Your task to perform on an android device: open a bookmark in the chrome app Image 0: 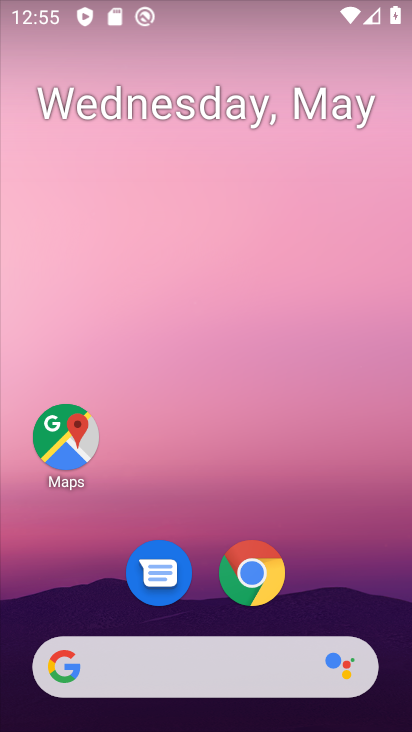
Step 0: click (255, 575)
Your task to perform on an android device: open a bookmark in the chrome app Image 1: 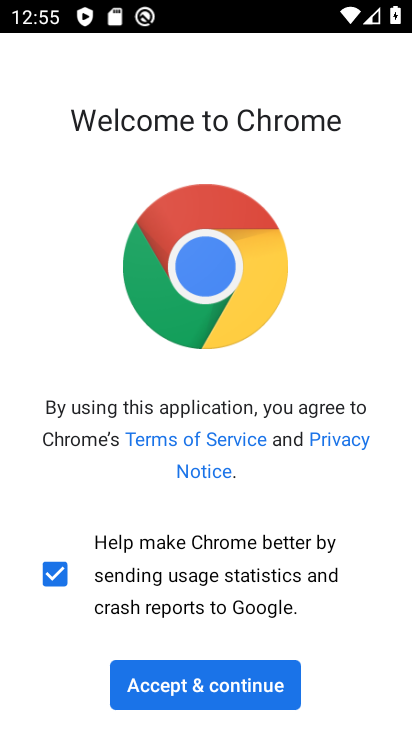
Step 1: click (242, 672)
Your task to perform on an android device: open a bookmark in the chrome app Image 2: 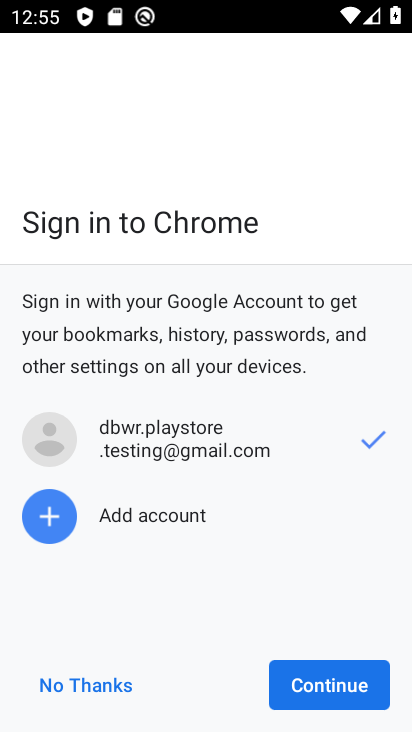
Step 2: click (302, 675)
Your task to perform on an android device: open a bookmark in the chrome app Image 3: 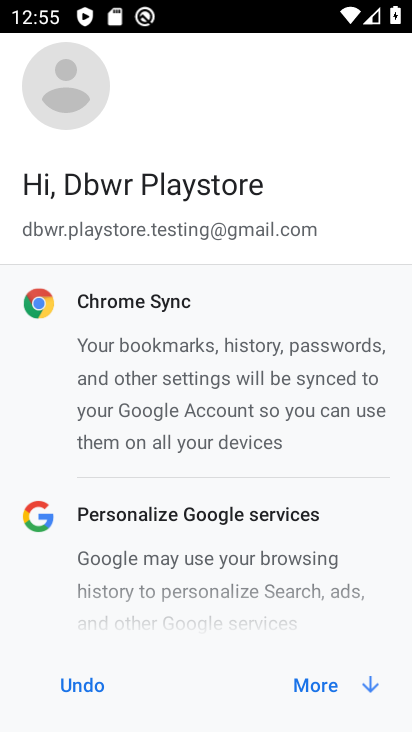
Step 3: click (320, 682)
Your task to perform on an android device: open a bookmark in the chrome app Image 4: 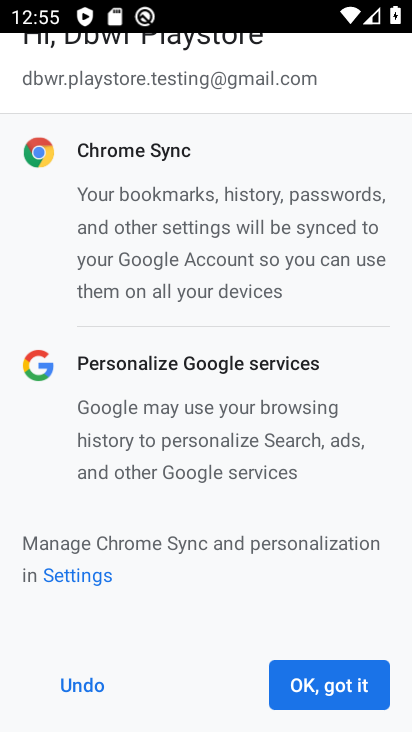
Step 4: click (321, 681)
Your task to perform on an android device: open a bookmark in the chrome app Image 5: 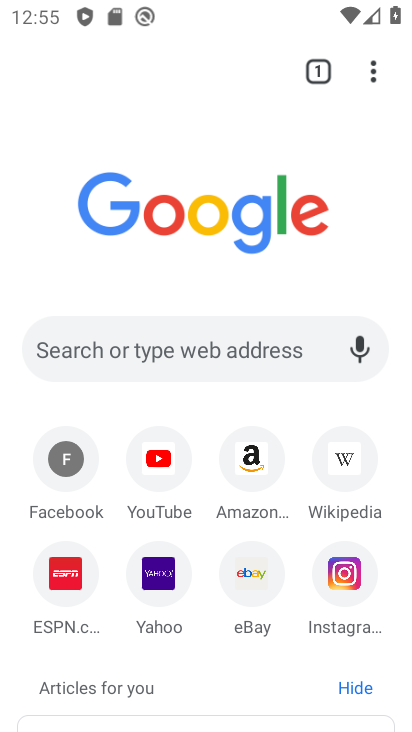
Step 5: task complete